Your task to perform on an android device: turn off javascript in the chrome app Image 0: 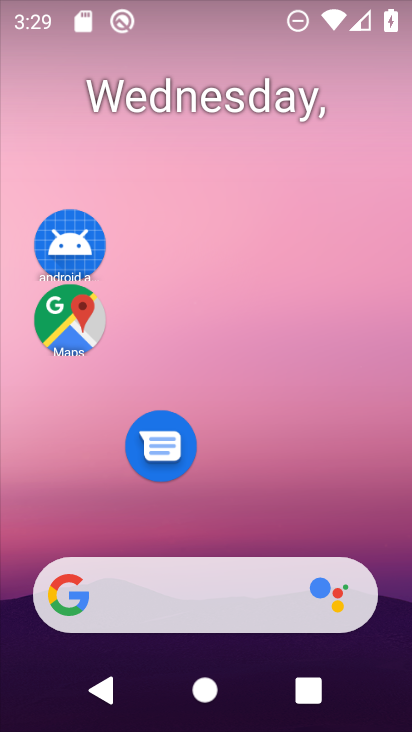
Step 0: drag from (372, 504) to (362, 110)
Your task to perform on an android device: turn off javascript in the chrome app Image 1: 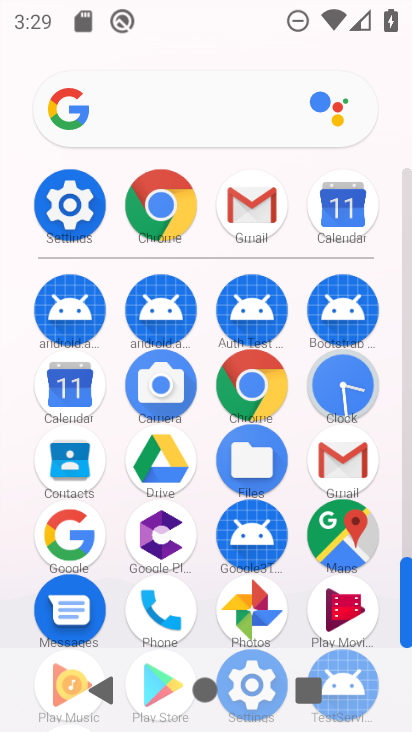
Step 1: click (59, 181)
Your task to perform on an android device: turn off javascript in the chrome app Image 2: 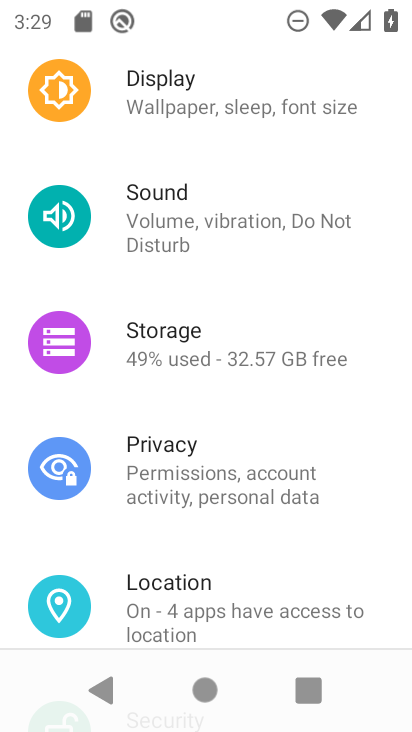
Step 2: click (88, 686)
Your task to perform on an android device: turn off javascript in the chrome app Image 3: 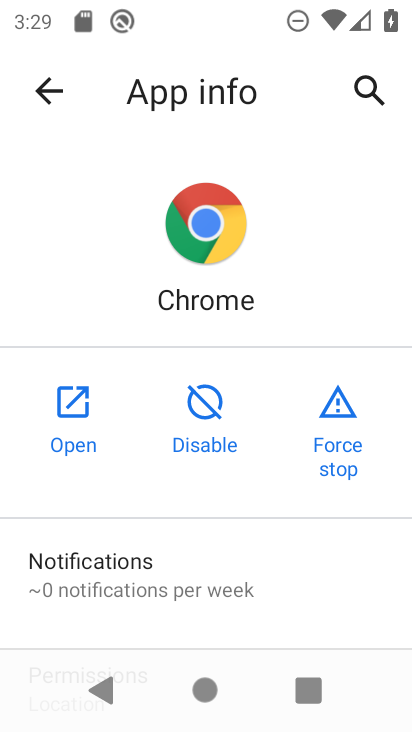
Step 3: click (57, 111)
Your task to perform on an android device: turn off javascript in the chrome app Image 4: 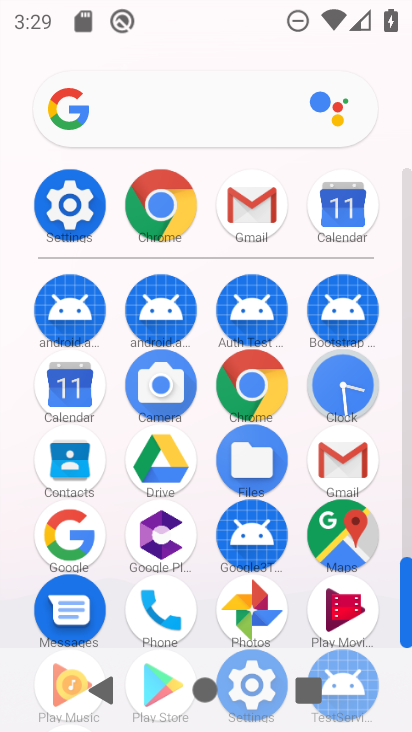
Step 4: click (162, 220)
Your task to perform on an android device: turn off javascript in the chrome app Image 5: 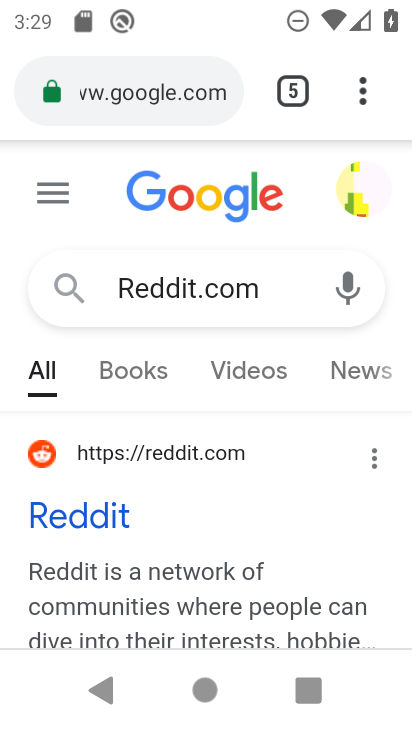
Step 5: click (357, 85)
Your task to perform on an android device: turn off javascript in the chrome app Image 6: 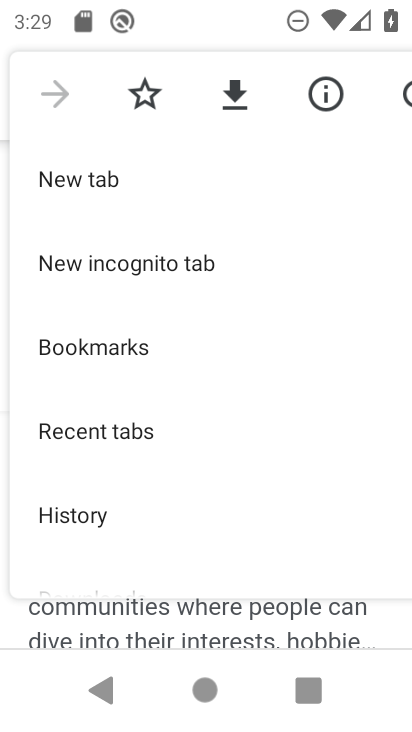
Step 6: drag from (183, 455) to (151, 172)
Your task to perform on an android device: turn off javascript in the chrome app Image 7: 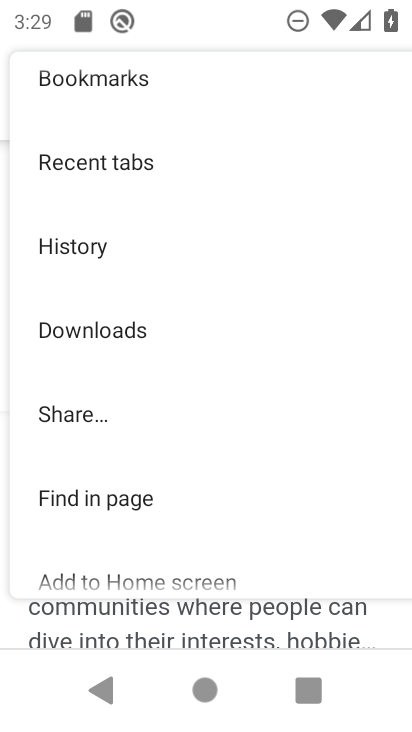
Step 7: drag from (188, 502) to (181, 321)
Your task to perform on an android device: turn off javascript in the chrome app Image 8: 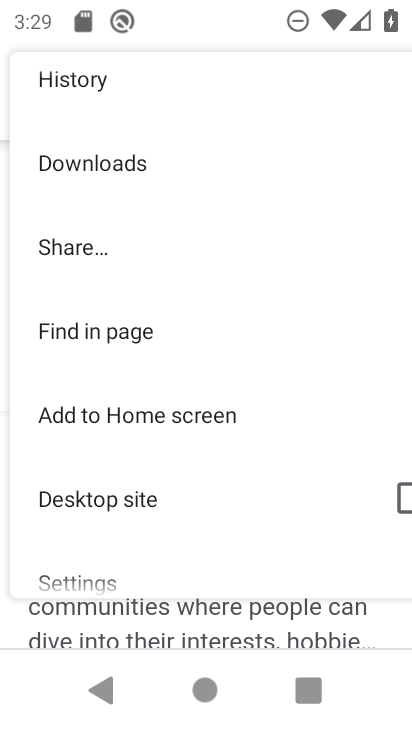
Step 8: drag from (188, 491) to (195, 300)
Your task to perform on an android device: turn off javascript in the chrome app Image 9: 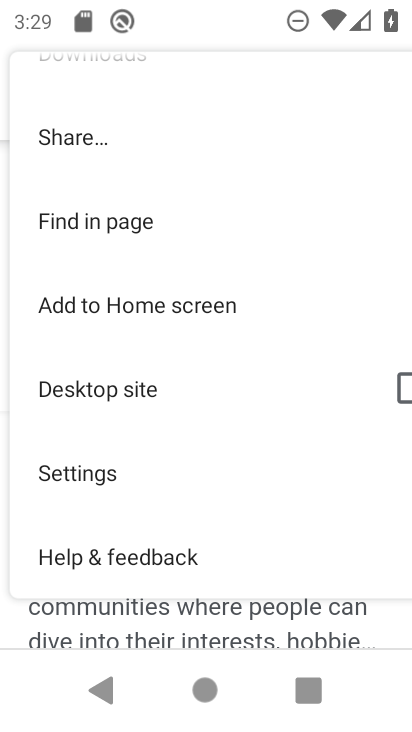
Step 9: click (171, 451)
Your task to perform on an android device: turn off javascript in the chrome app Image 10: 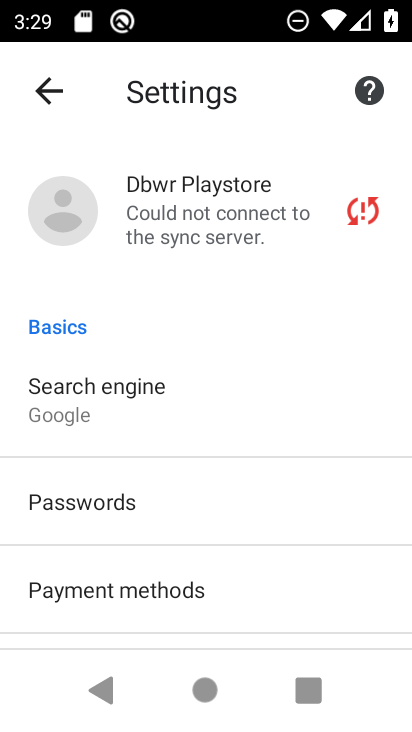
Step 10: drag from (190, 548) to (153, 113)
Your task to perform on an android device: turn off javascript in the chrome app Image 11: 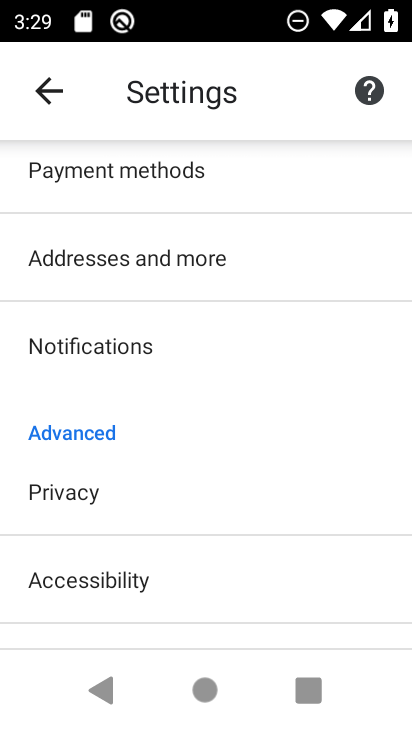
Step 11: drag from (156, 443) to (155, 282)
Your task to perform on an android device: turn off javascript in the chrome app Image 12: 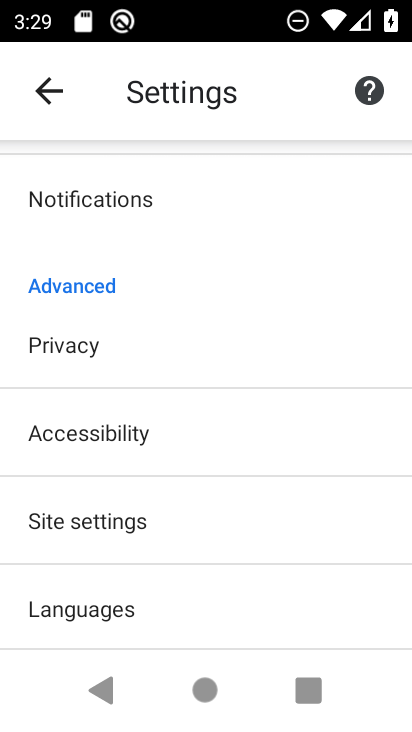
Step 12: drag from (175, 546) to (175, 479)
Your task to perform on an android device: turn off javascript in the chrome app Image 13: 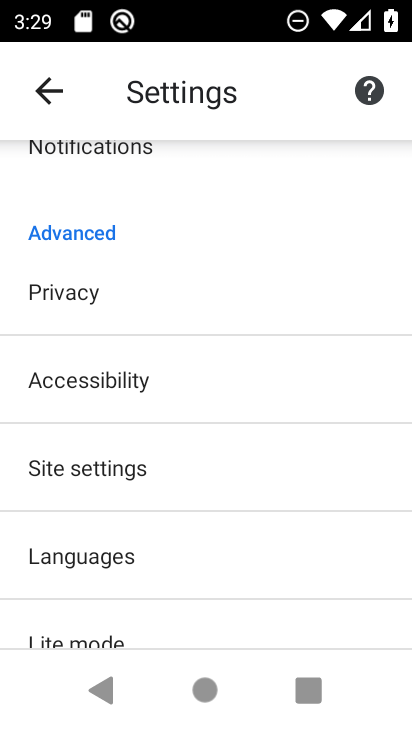
Step 13: click (175, 479)
Your task to perform on an android device: turn off javascript in the chrome app Image 14: 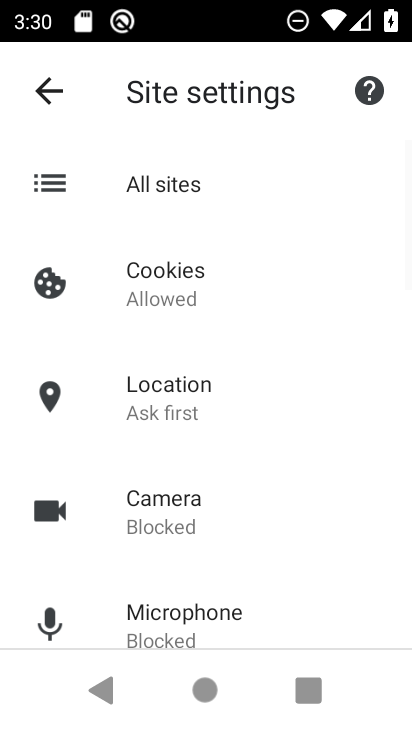
Step 14: drag from (196, 601) to (214, 296)
Your task to perform on an android device: turn off javascript in the chrome app Image 15: 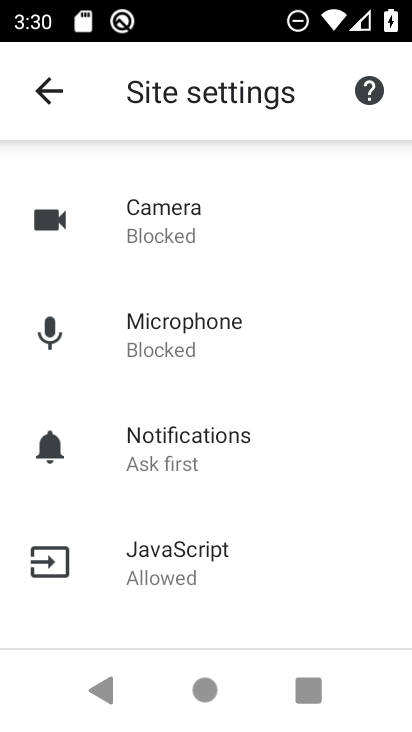
Step 15: click (222, 510)
Your task to perform on an android device: turn off javascript in the chrome app Image 16: 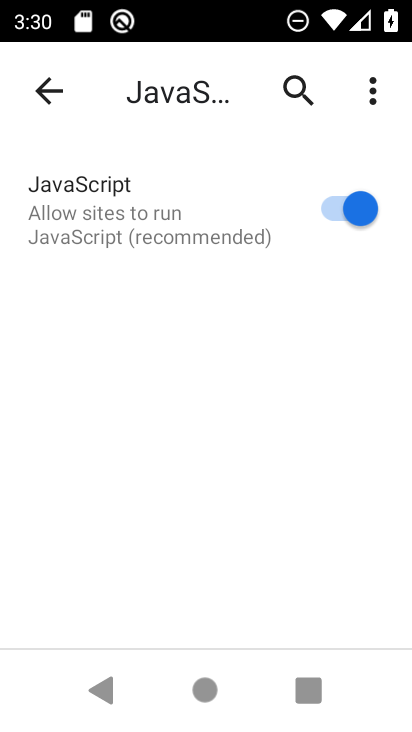
Step 16: click (330, 191)
Your task to perform on an android device: turn off javascript in the chrome app Image 17: 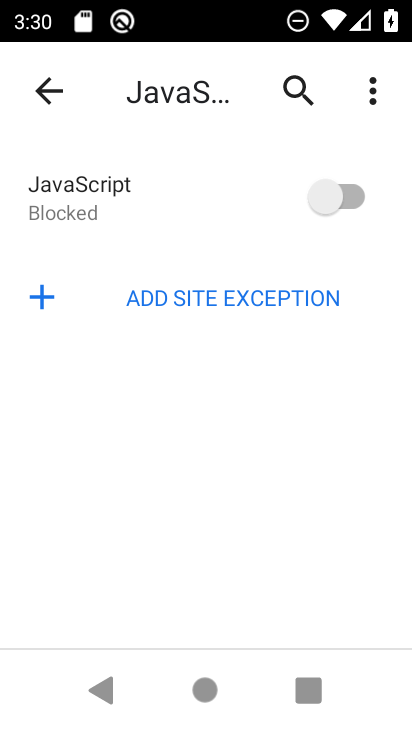
Step 17: task complete